Your task to perform on an android device: When is my next appointment? Image 0: 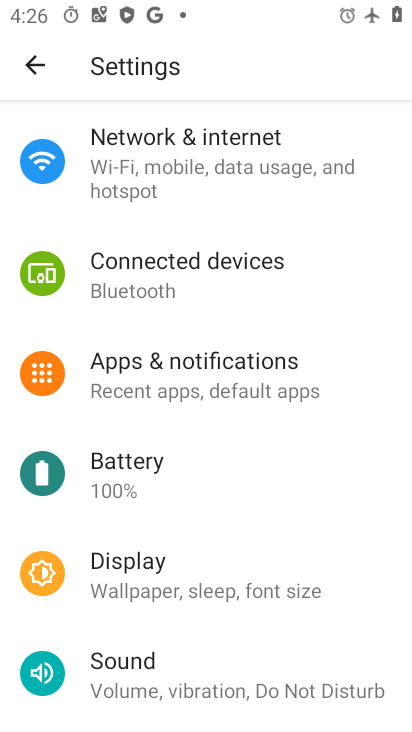
Step 0: press home button
Your task to perform on an android device: When is my next appointment? Image 1: 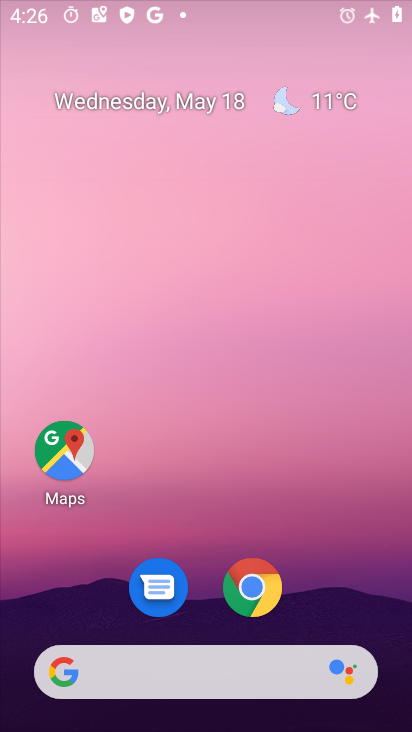
Step 1: drag from (159, 577) to (136, 89)
Your task to perform on an android device: When is my next appointment? Image 2: 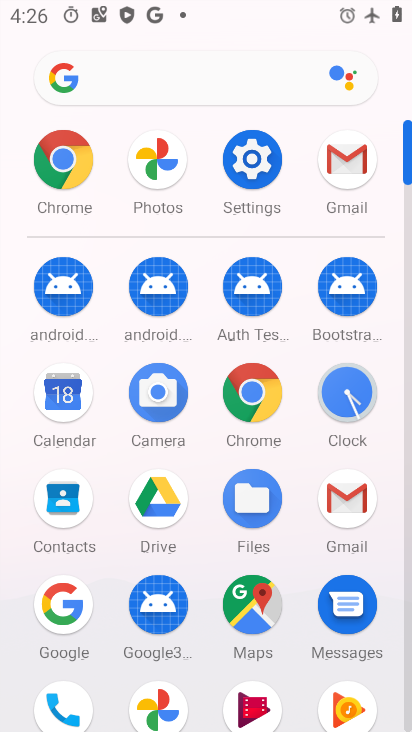
Step 2: click (65, 406)
Your task to perform on an android device: When is my next appointment? Image 3: 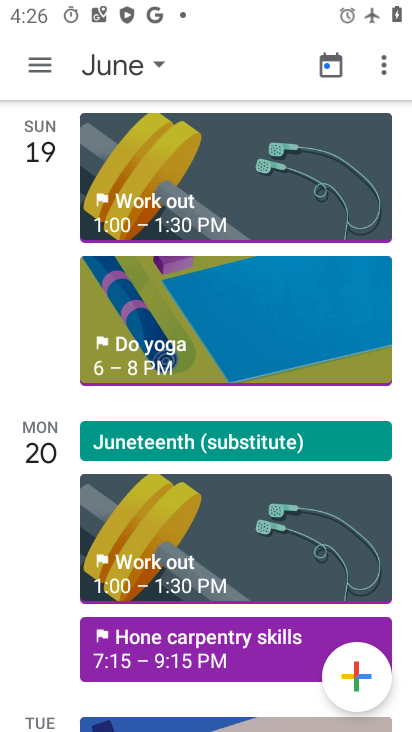
Step 3: click (45, 62)
Your task to perform on an android device: When is my next appointment? Image 4: 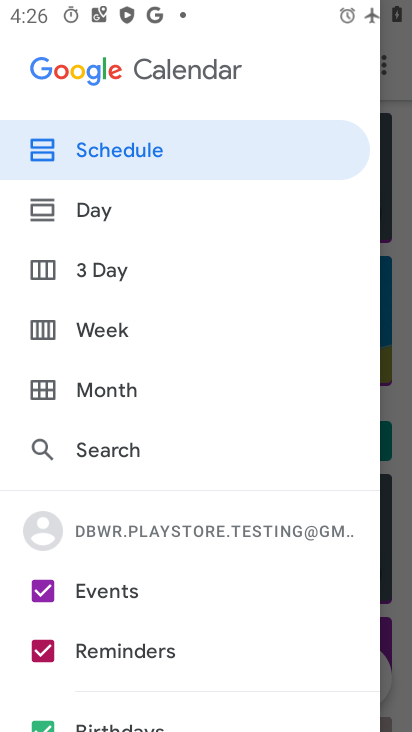
Step 4: drag from (196, 470) to (190, 325)
Your task to perform on an android device: When is my next appointment? Image 5: 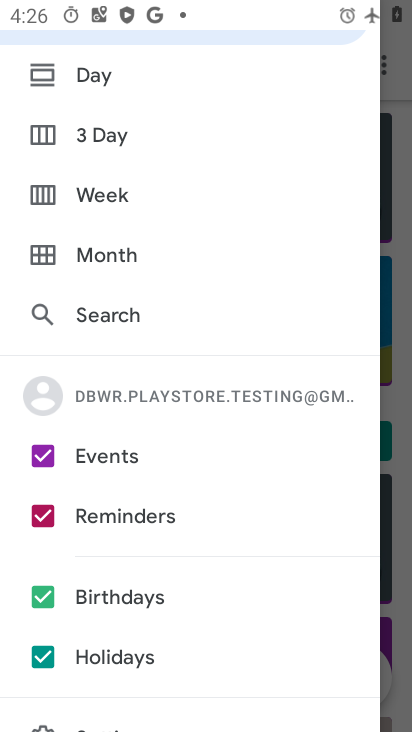
Step 5: drag from (158, 595) to (153, 421)
Your task to perform on an android device: When is my next appointment? Image 6: 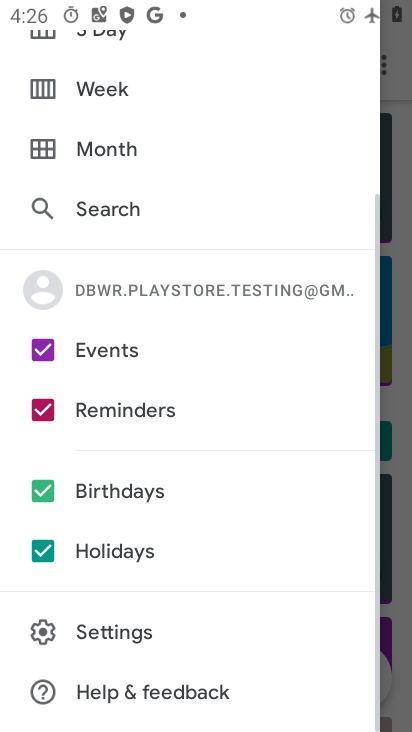
Step 6: click (41, 498)
Your task to perform on an android device: When is my next appointment? Image 7: 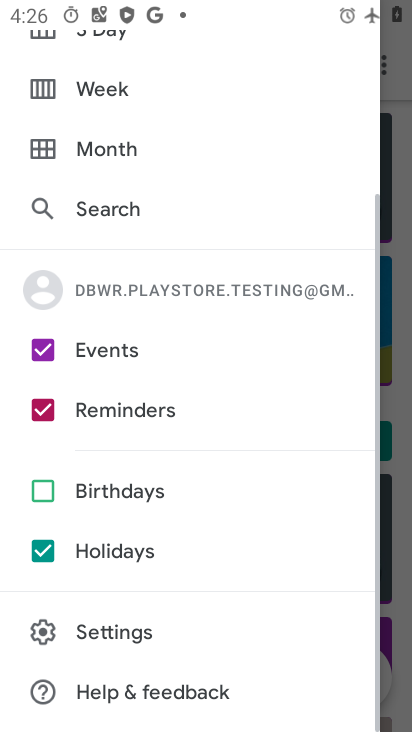
Step 7: click (41, 561)
Your task to perform on an android device: When is my next appointment? Image 8: 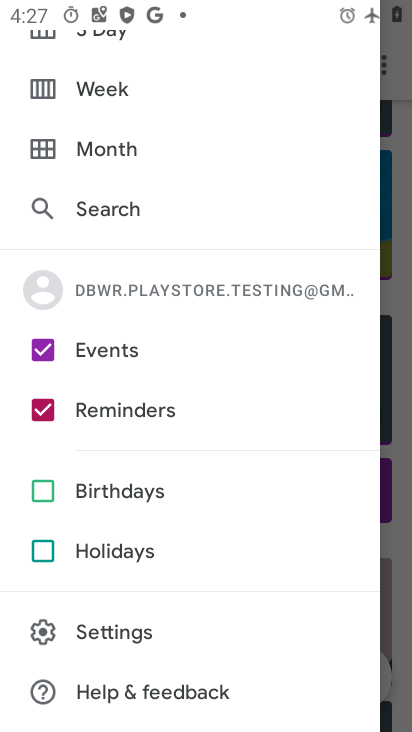
Step 8: task complete